Your task to perform on an android device: Clear the cart on target.com. Add beats solo 3 to the cart on target.com Image 0: 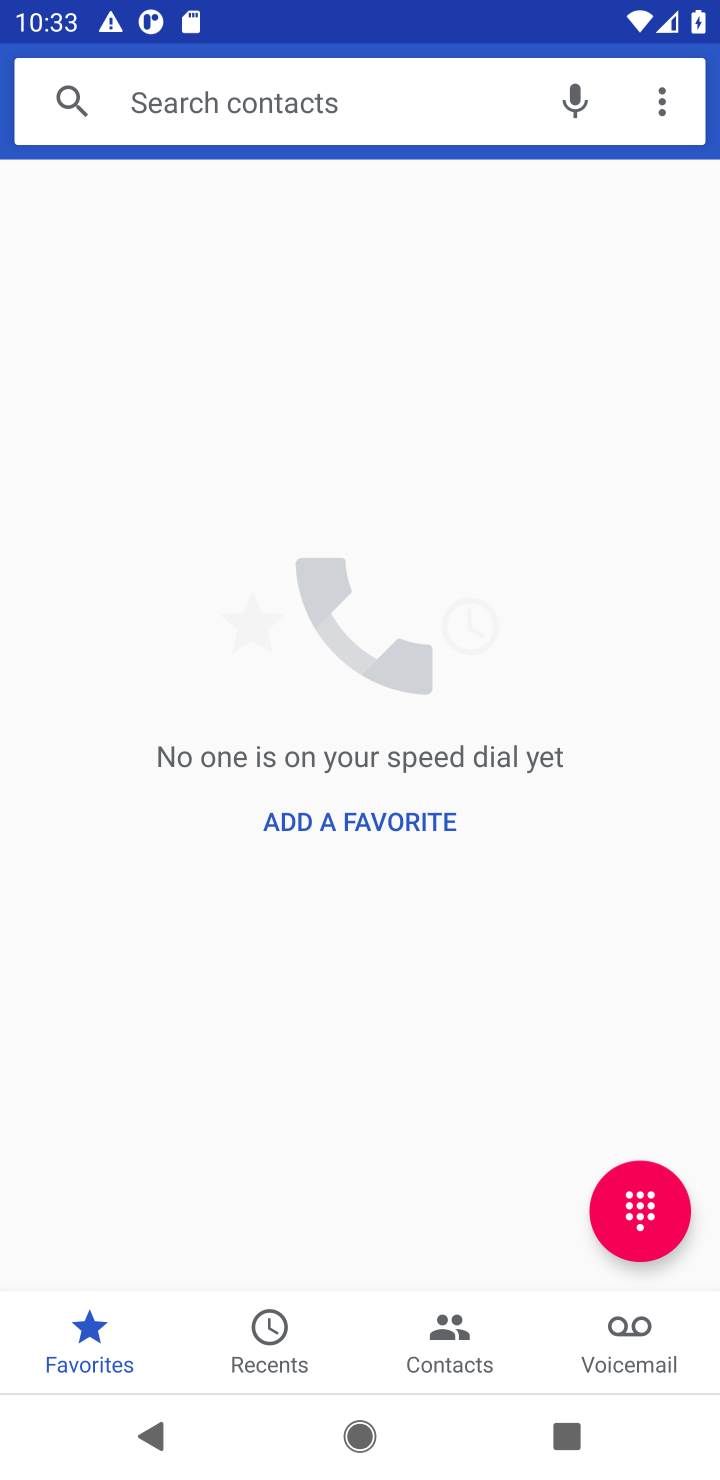
Step 0: press home button
Your task to perform on an android device: Clear the cart on target.com. Add beats solo 3 to the cart on target.com Image 1: 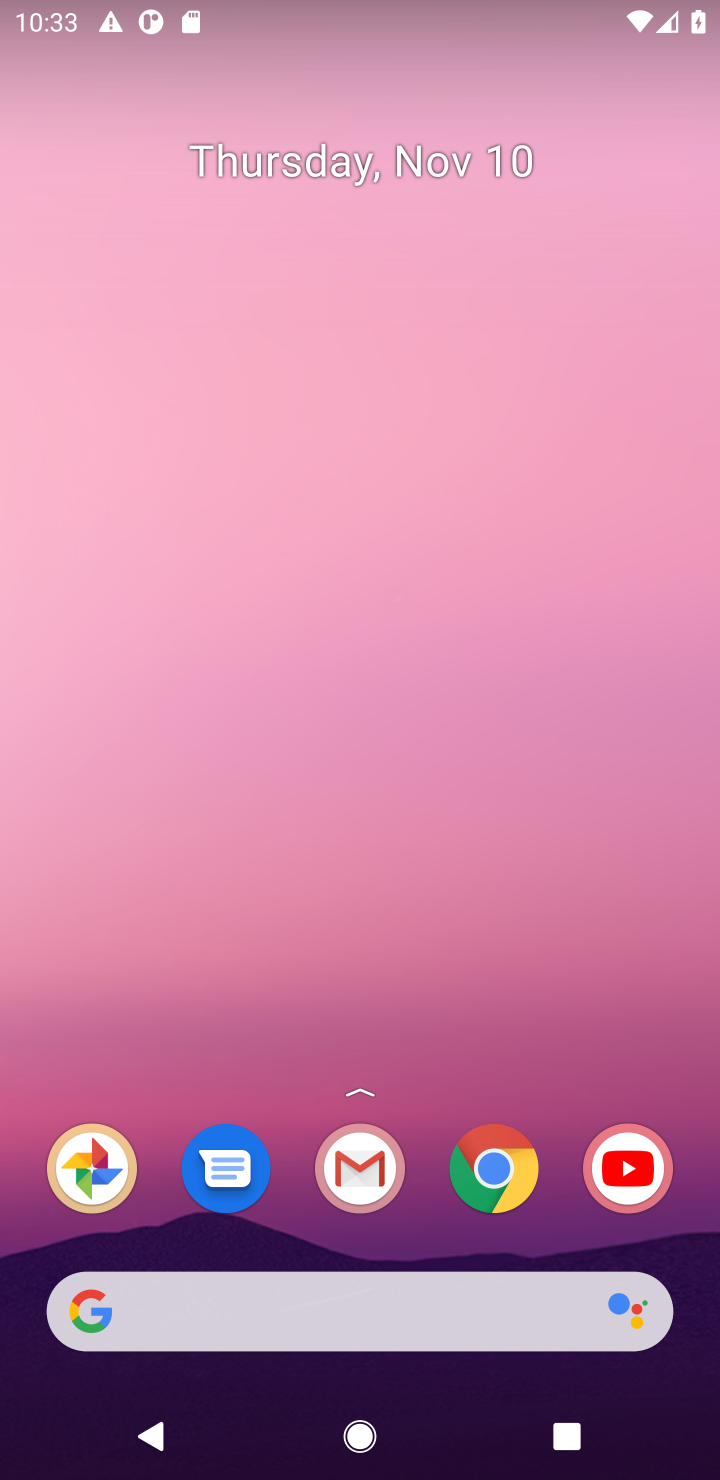
Step 1: click (494, 1186)
Your task to perform on an android device: Clear the cart on target.com. Add beats solo 3 to the cart on target.com Image 2: 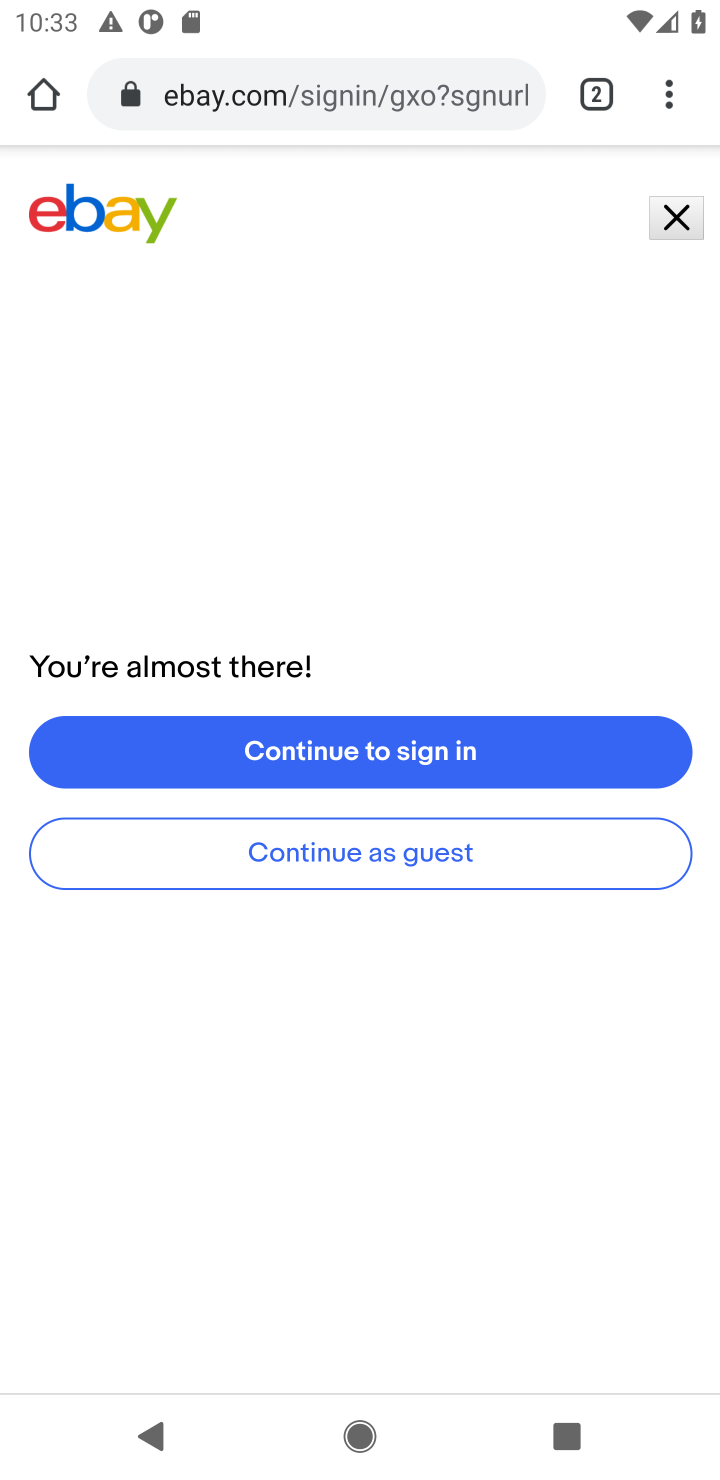
Step 2: click (325, 92)
Your task to perform on an android device: Clear the cart on target.com. Add beats solo 3 to the cart on target.com Image 3: 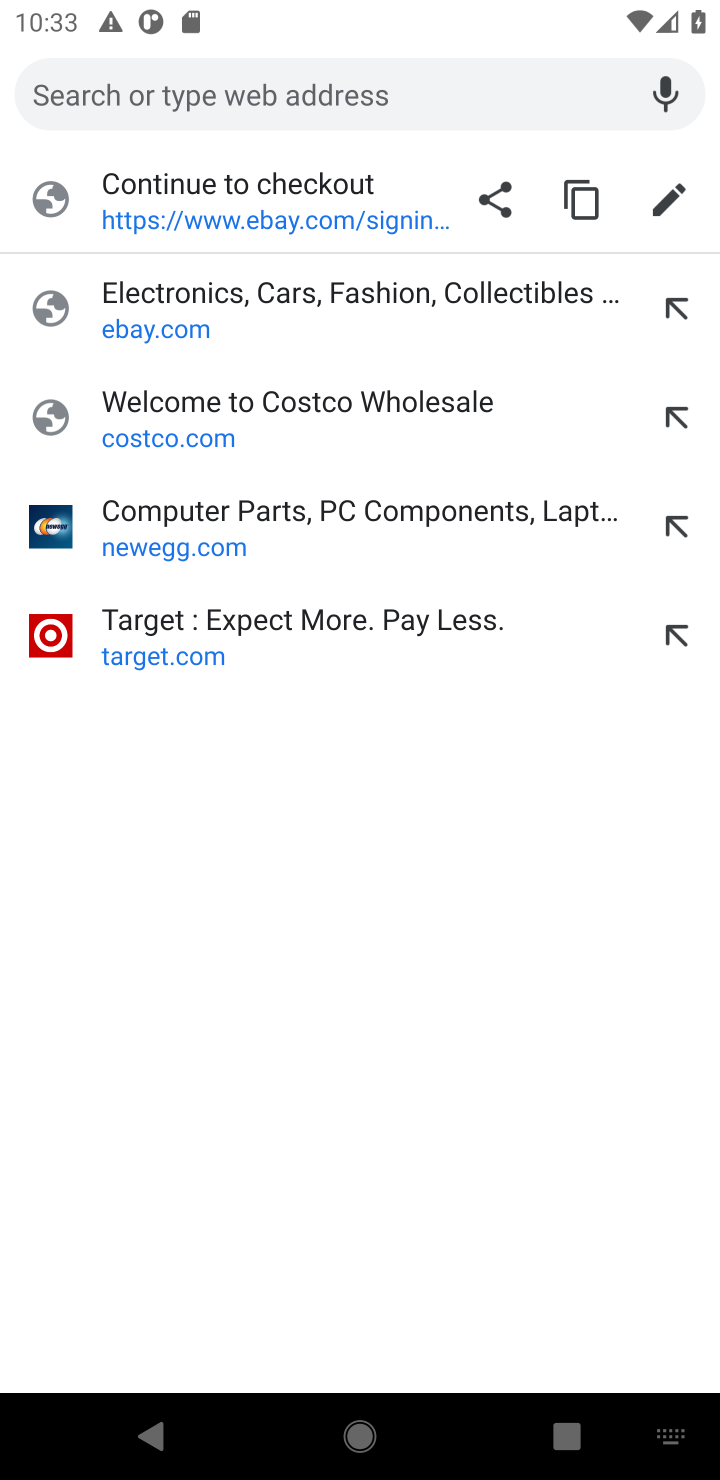
Step 3: click (101, 613)
Your task to perform on an android device: Clear the cart on target.com. Add beats solo 3 to the cart on target.com Image 4: 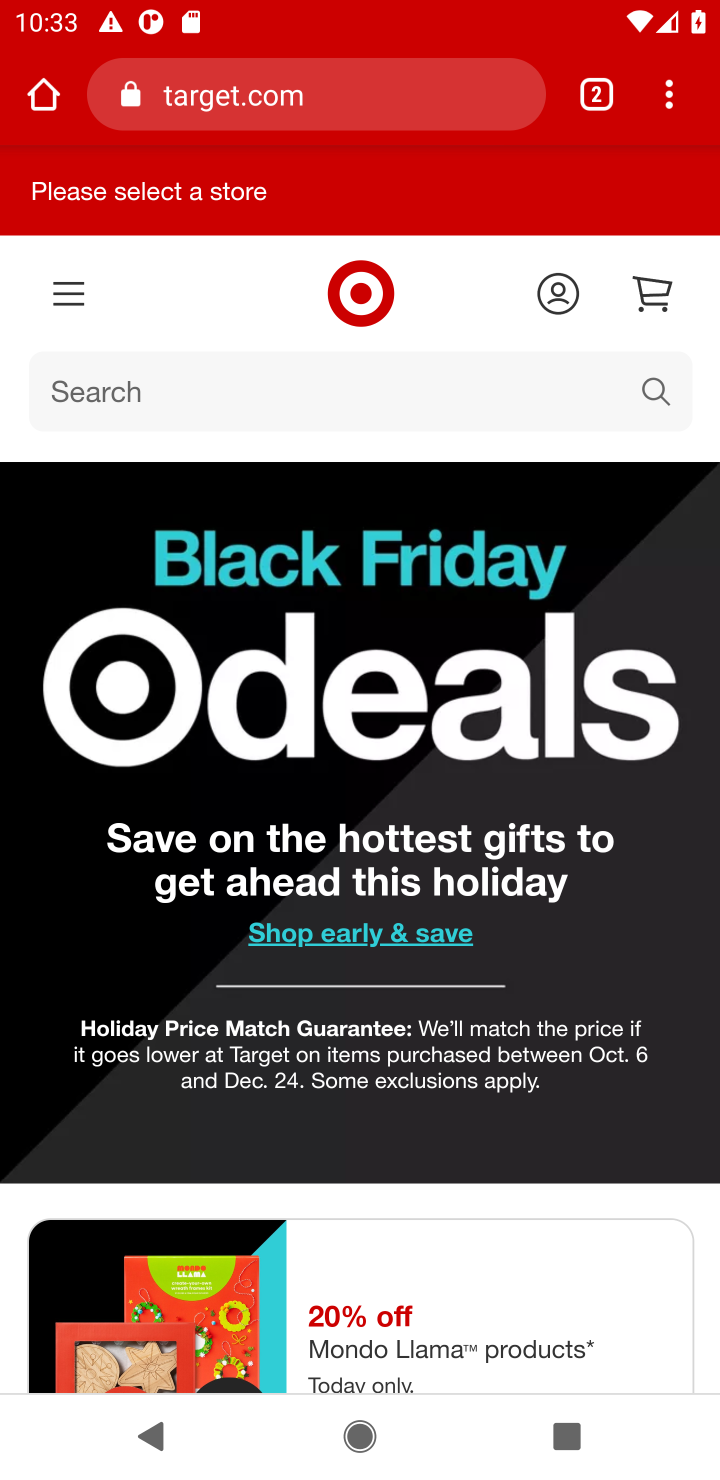
Step 4: click (666, 291)
Your task to perform on an android device: Clear the cart on target.com. Add beats solo 3 to the cart on target.com Image 5: 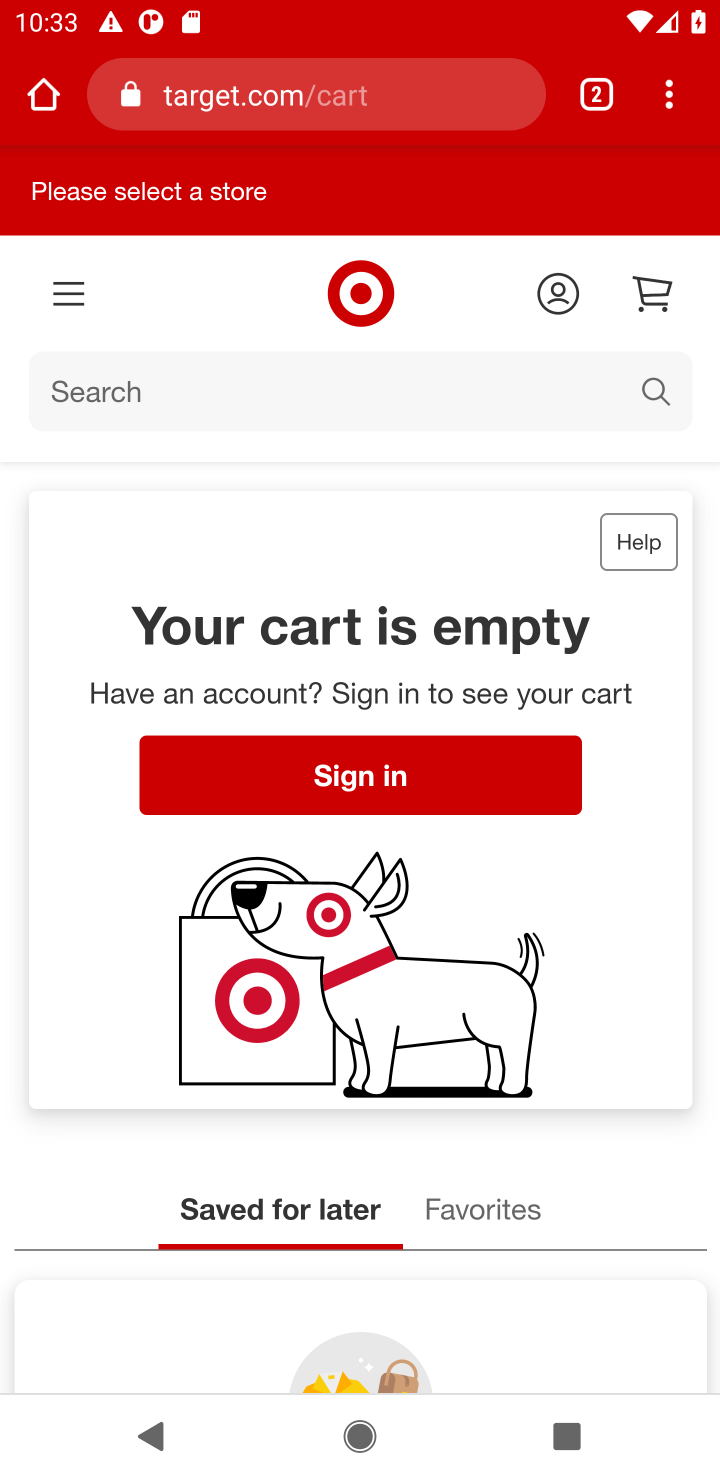
Step 5: click (661, 395)
Your task to perform on an android device: Clear the cart on target.com. Add beats solo 3 to the cart on target.com Image 6: 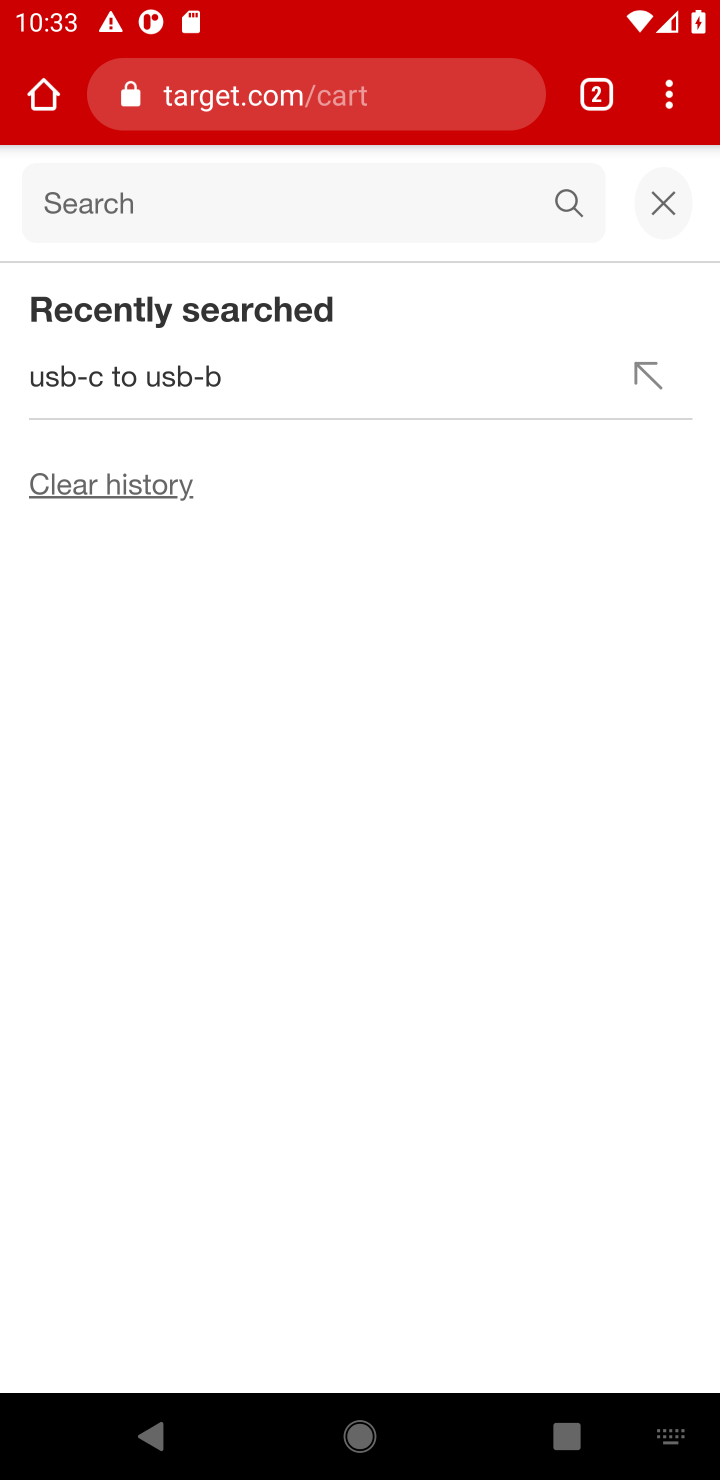
Step 6: type "beats solo 3"
Your task to perform on an android device: Clear the cart on target.com. Add beats solo 3 to the cart on target.com Image 7: 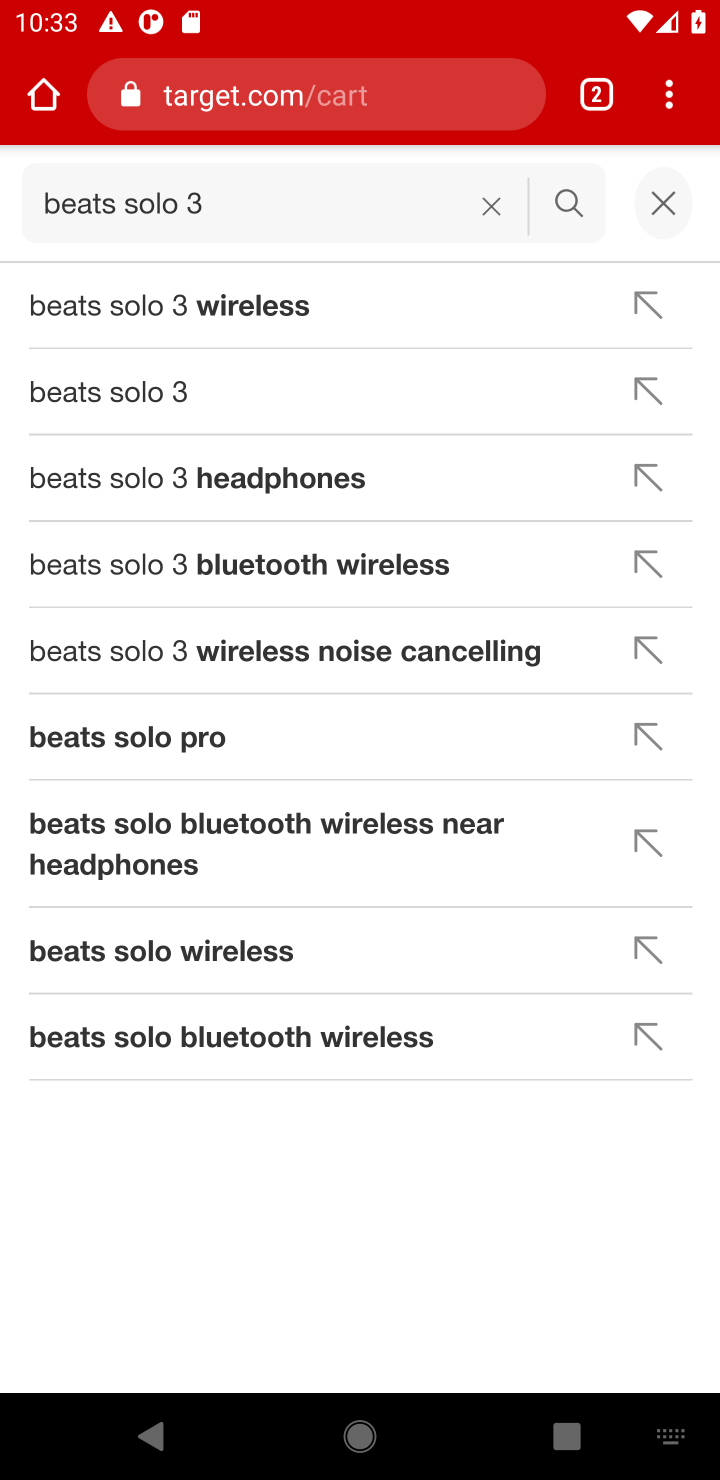
Step 7: click (145, 408)
Your task to perform on an android device: Clear the cart on target.com. Add beats solo 3 to the cart on target.com Image 8: 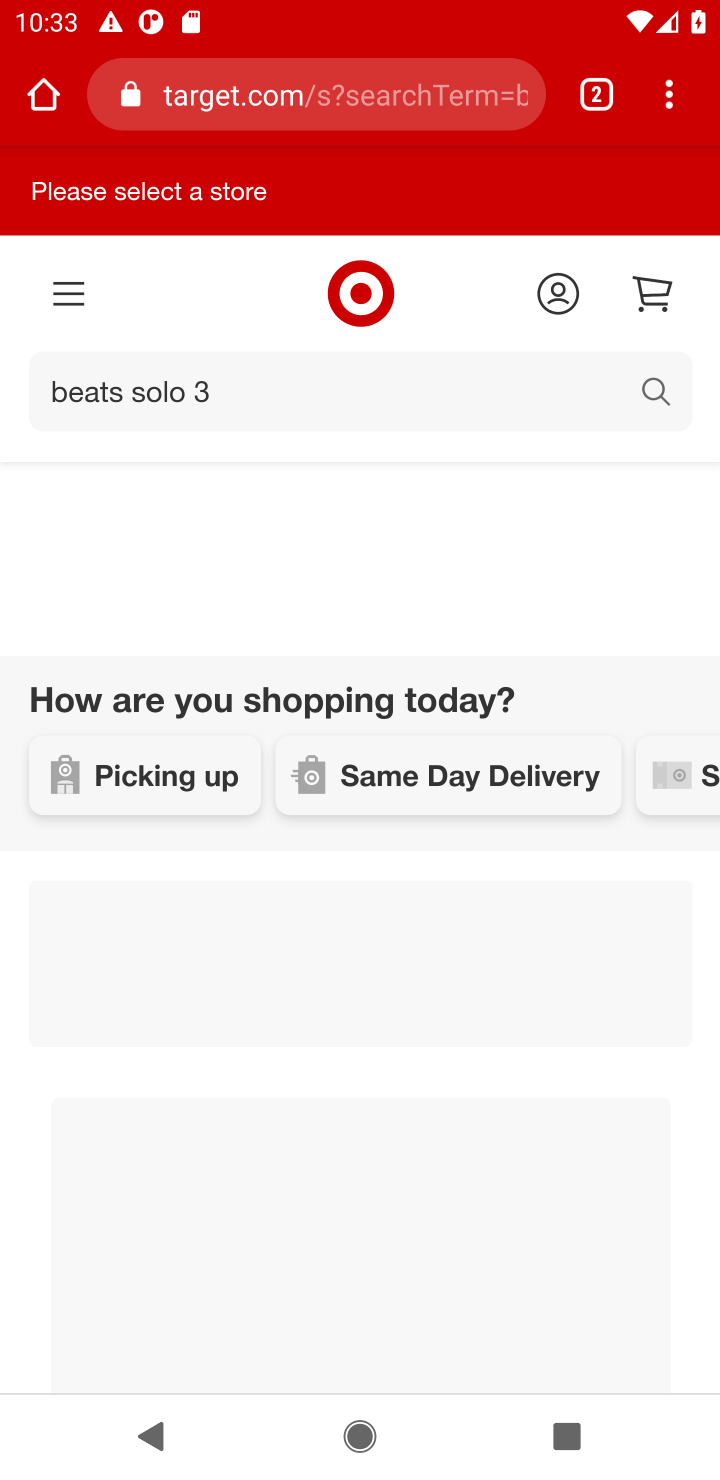
Step 8: drag from (329, 885) to (302, 732)
Your task to perform on an android device: Clear the cart on target.com. Add beats solo 3 to the cart on target.com Image 9: 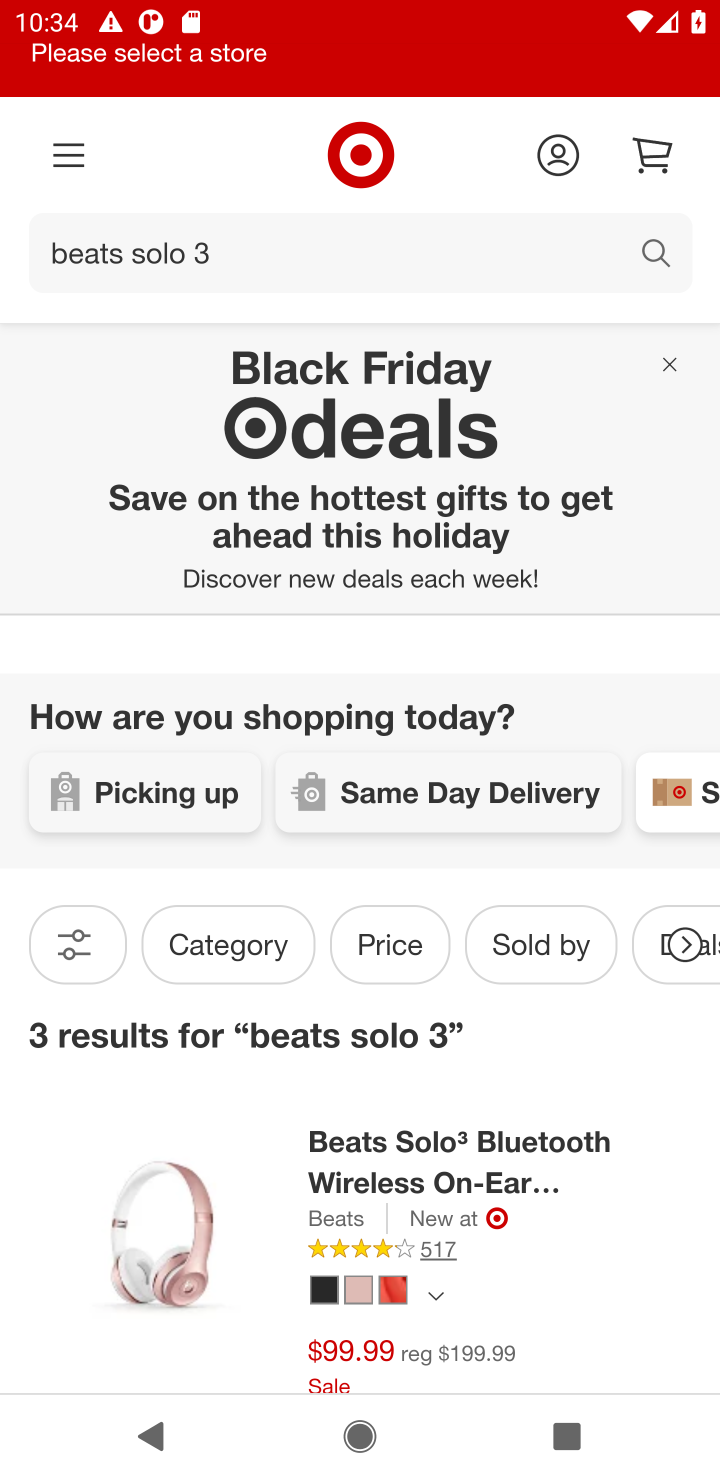
Step 9: drag from (282, 921) to (282, 534)
Your task to perform on an android device: Clear the cart on target.com. Add beats solo 3 to the cart on target.com Image 10: 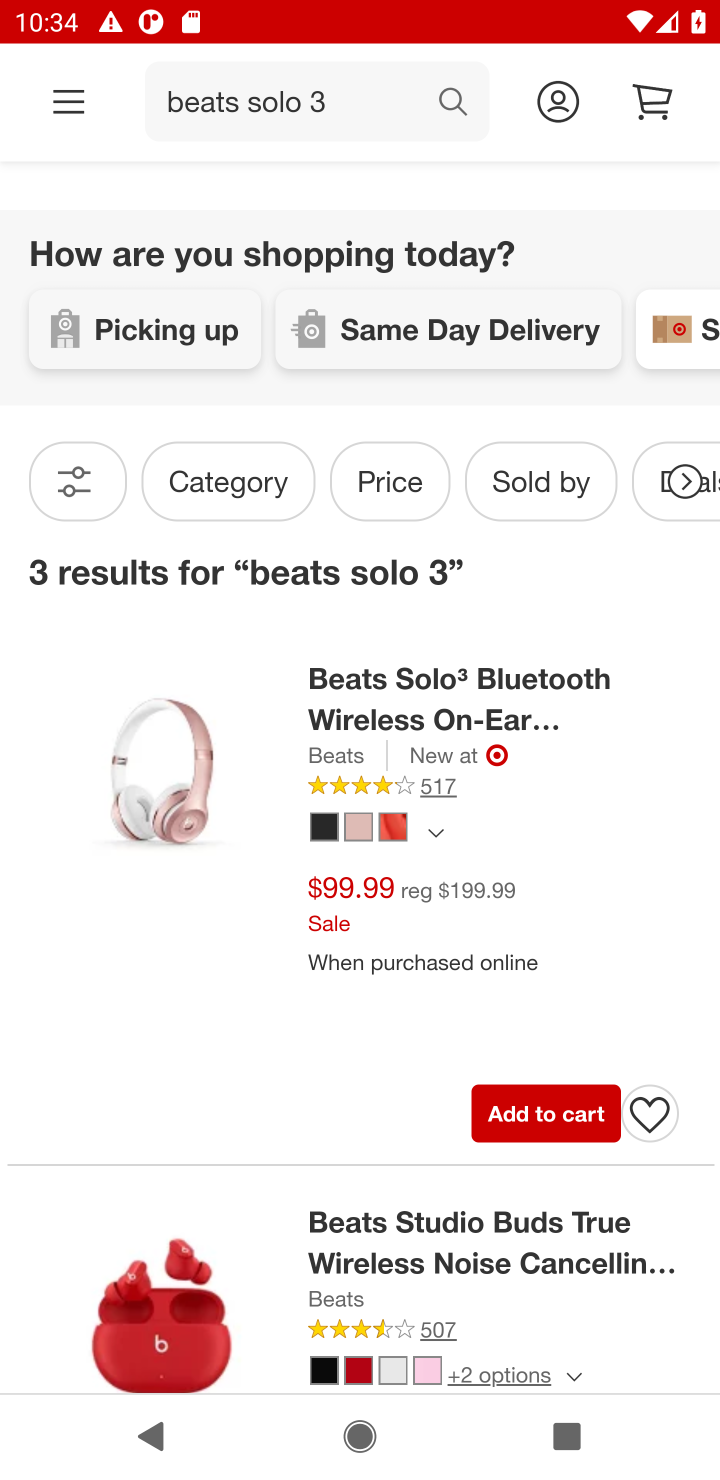
Step 10: click (513, 1106)
Your task to perform on an android device: Clear the cart on target.com. Add beats solo 3 to the cart on target.com Image 11: 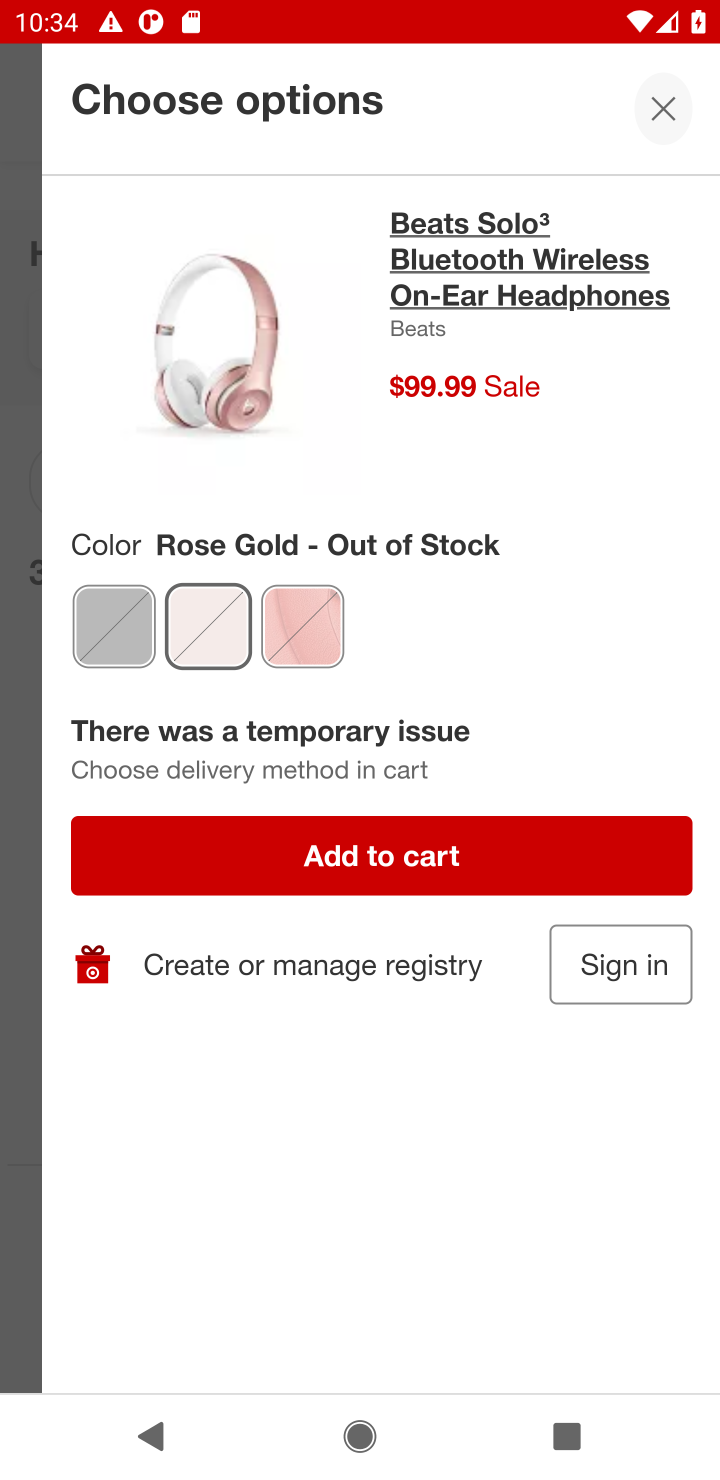
Step 11: click (319, 873)
Your task to perform on an android device: Clear the cart on target.com. Add beats solo 3 to the cart on target.com Image 12: 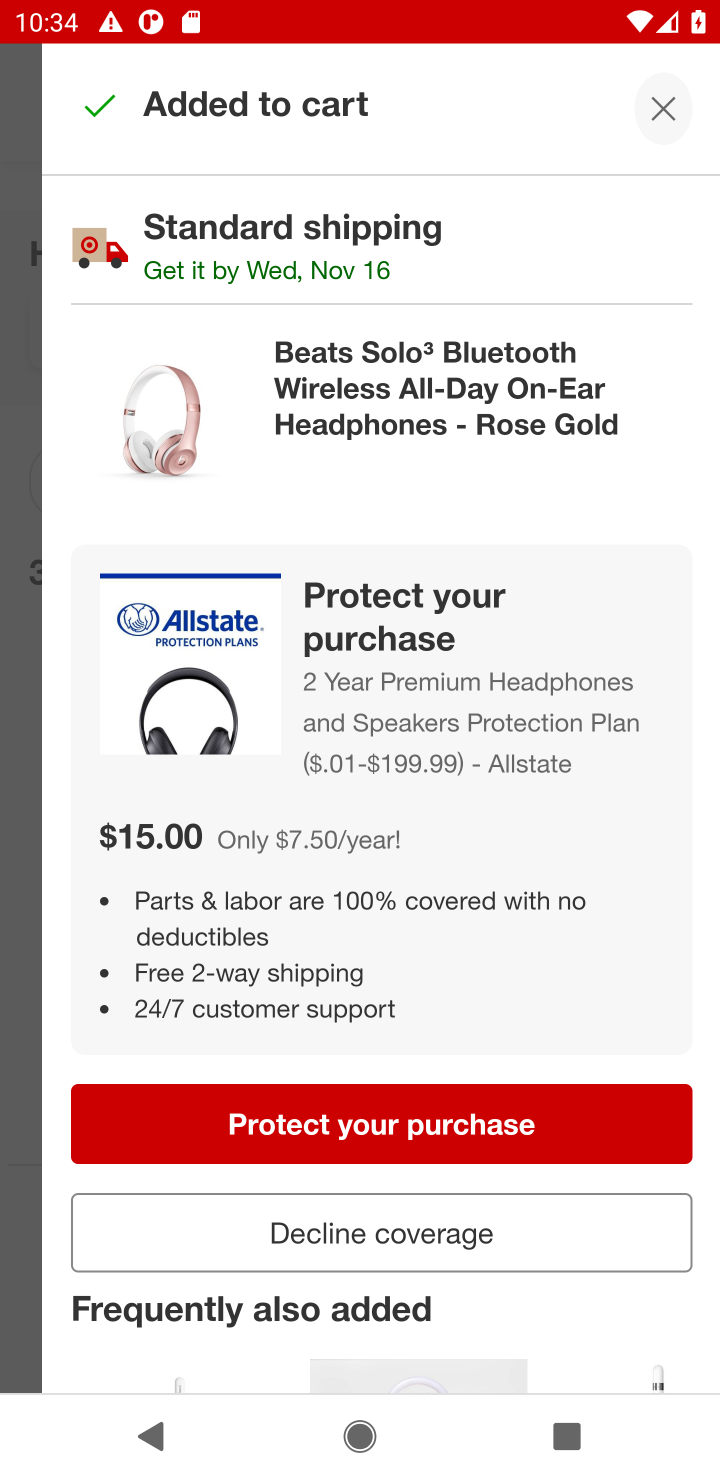
Step 12: task complete